Your task to perform on an android device: search for starred emails in the gmail app Image 0: 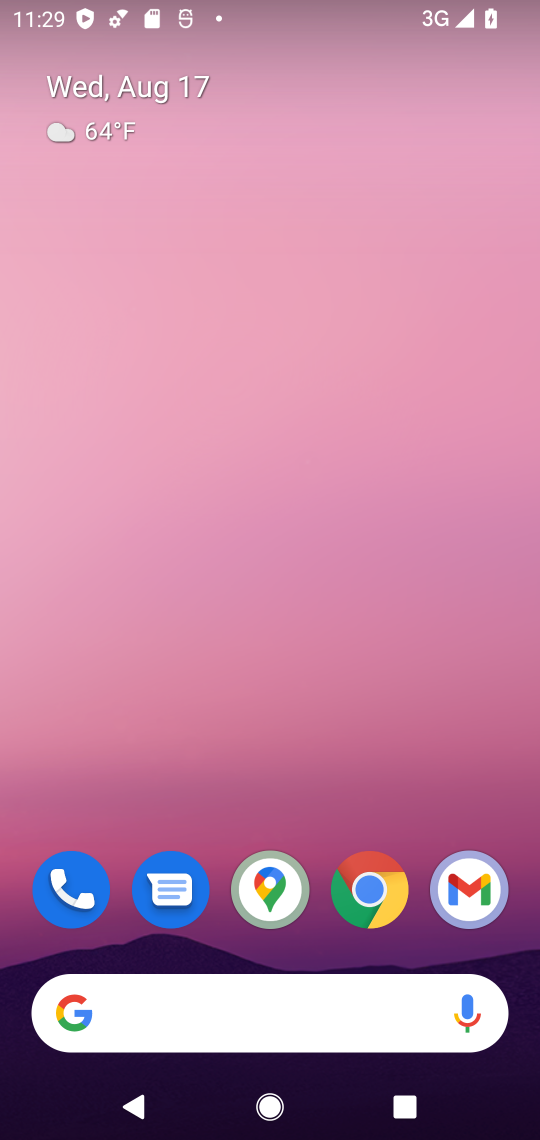
Step 0: click (479, 889)
Your task to perform on an android device: search for starred emails in the gmail app Image 1: 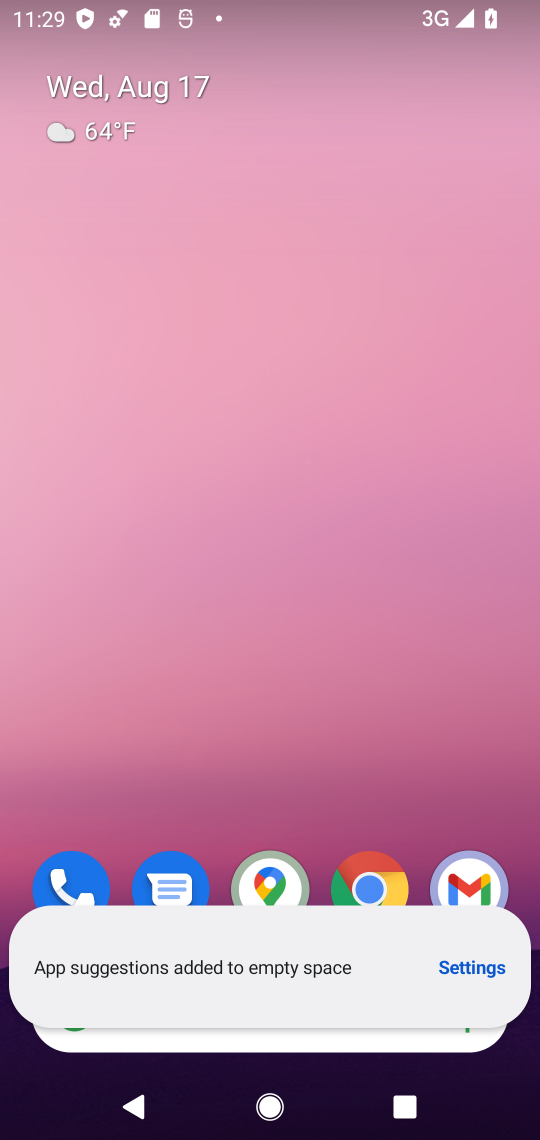
Step 1: click (473, 863)
Your task to perform on an android device: search for starred emails in the gmail app Image 2: 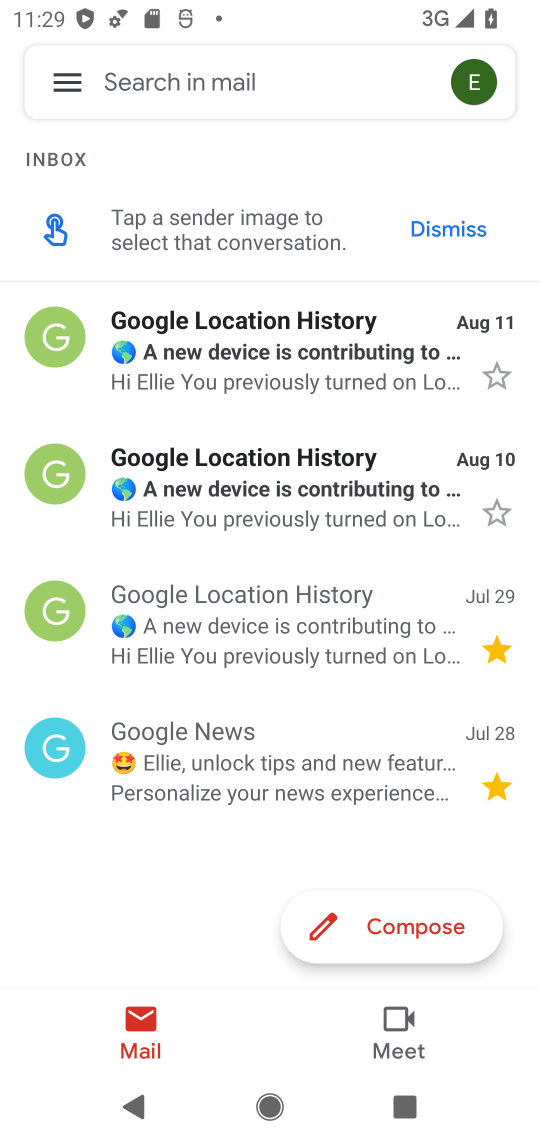
Step 2: click (66, 84)
Your task to perform on an android device: search for starred emails in the gmail app Image 3: 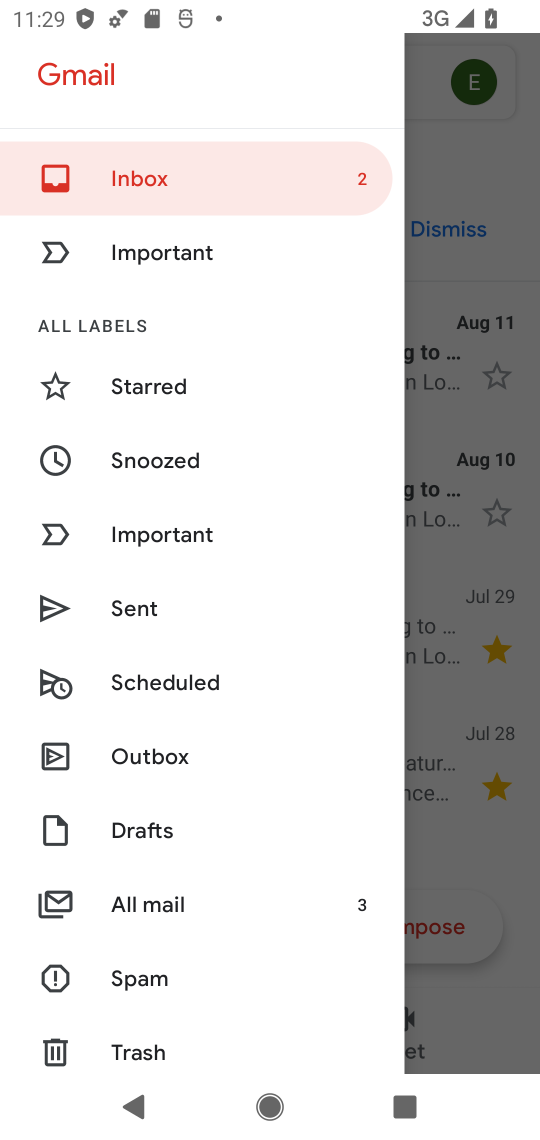
Step 3: click (148, 373)
Your task to perform on an android device: search for starred emails in the gmail app Image 4: 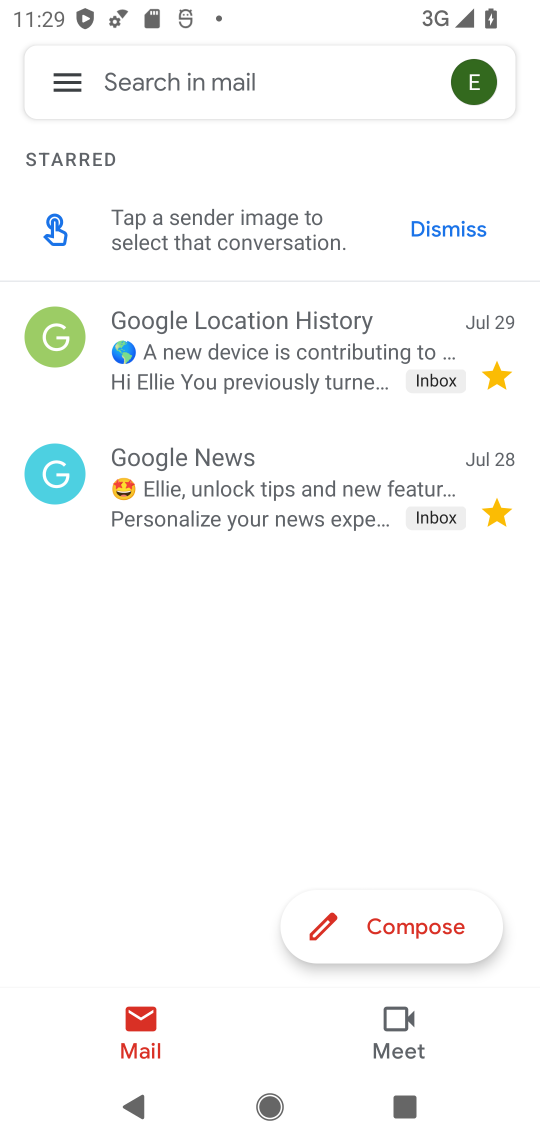
Step 4: task complete